Your task to perform on an android device: open sync settings in chrome Image 0: 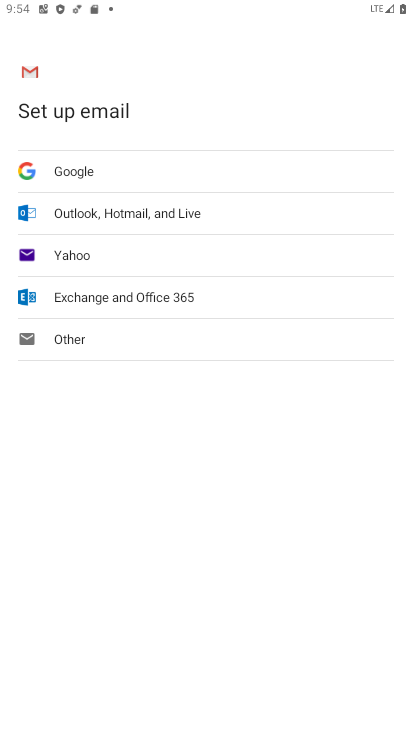
Step 0: press home button
Your task to perform on an android device: open sync settings in chrome Image 1: 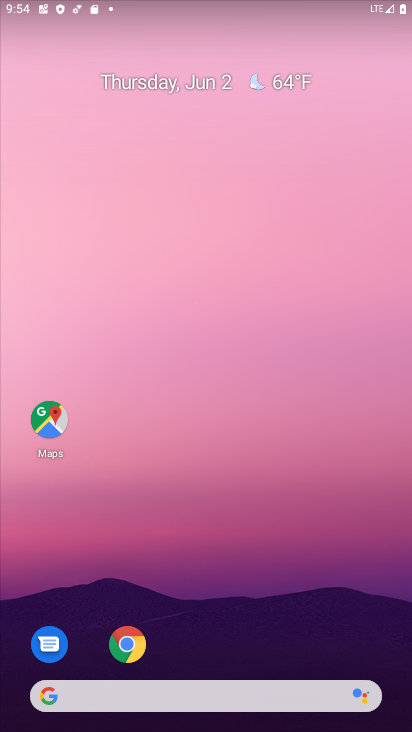
Step 1: click (116, 643)
Your task to perform on an android device: open sync settings in chrome Image 2: 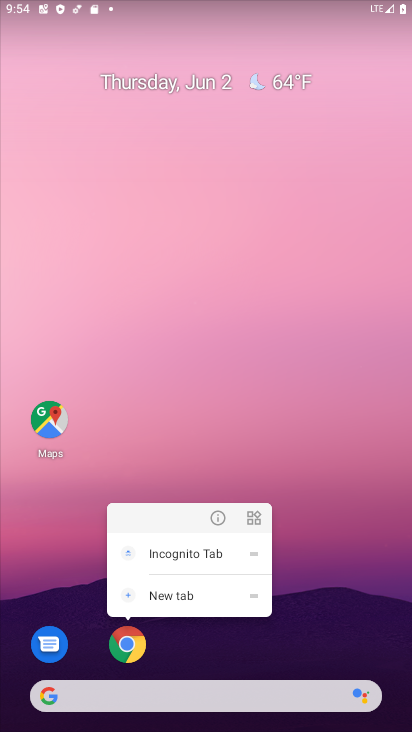
Step 2: click (128, 644)
Your task to perform on an android device: open sync settings in chrome Image 3: 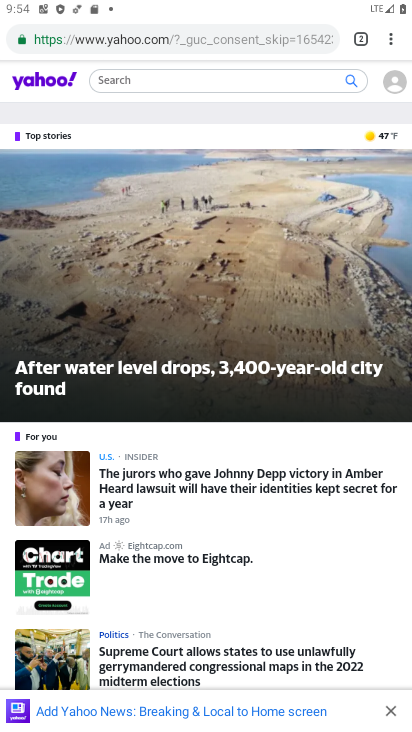
Step 3: drag from (391, 37) to (274, 424)
Your task to perform on an android device: open sync settings in chrome Image 4: 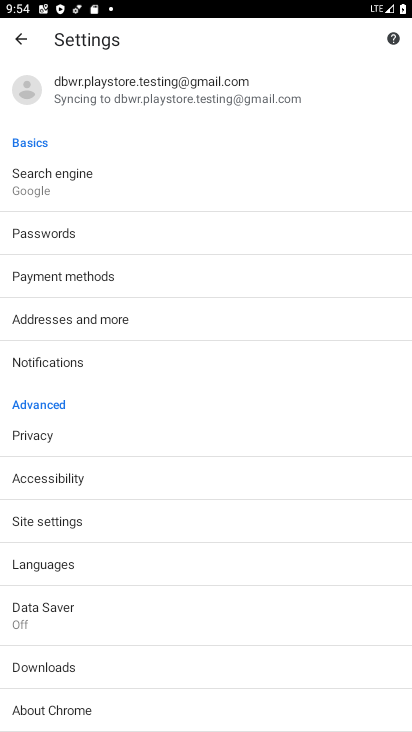
Step 4: click (208, 90)
Your task to perform on an android device: open sync settings in chrome Image 5: 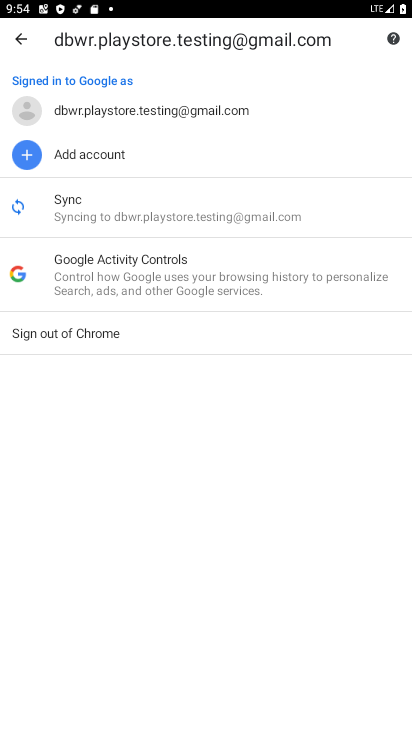
Step 5: task complete